Your task to perform on an android device: Open the calendar and show me this week's events? Image 0: 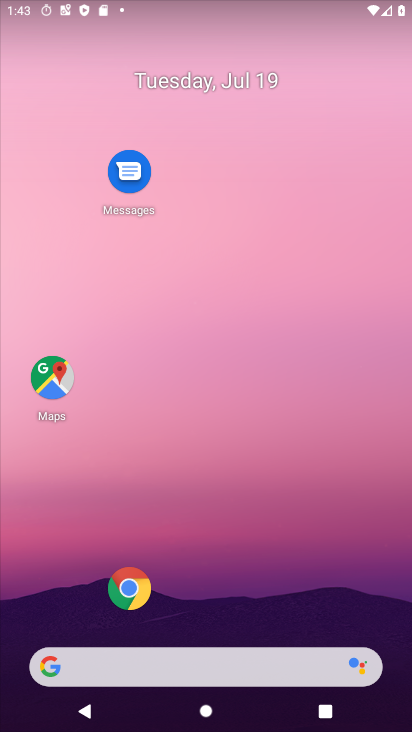
Step 0: drag from (25, 687) to (235, 179)
Your task to perform on an android device: Open the calendar and show me this week's events? Image 1: 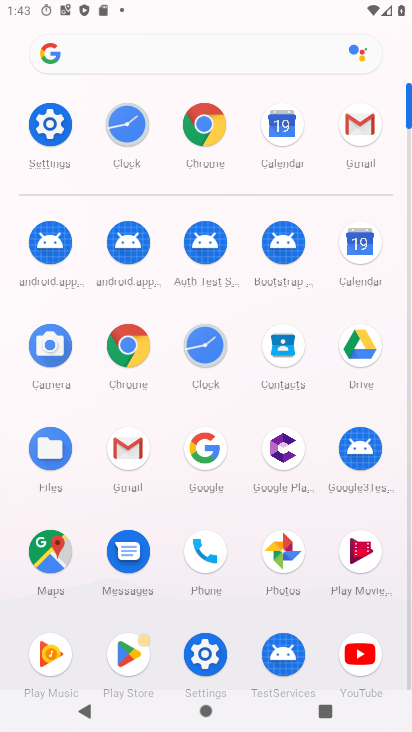
Step 1: click (290, 140)
Your task to perform on an android device: Open the calendar and show me this week's events? Image 2: 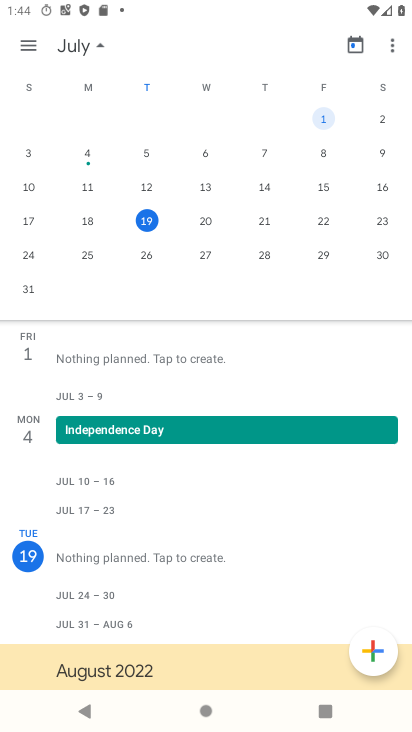
Step 2: task complete